Your task to perform on an android device: turn off smart reply in the gmail app Image 0: 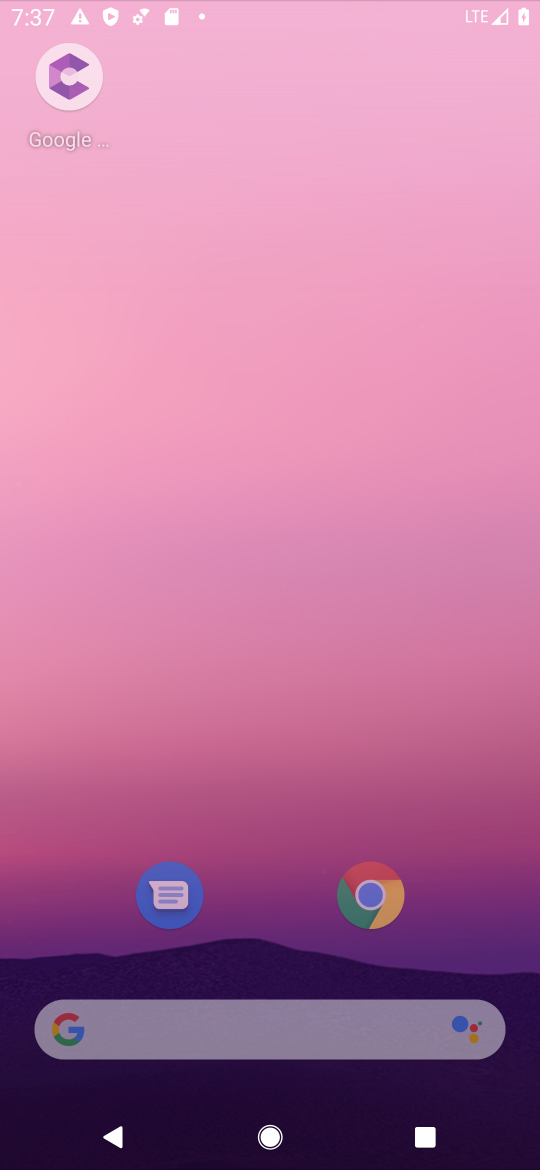
Step 0: click (333, 178)
Your task to perform on an android device: turn off smart reply in the gmail app Image 1: 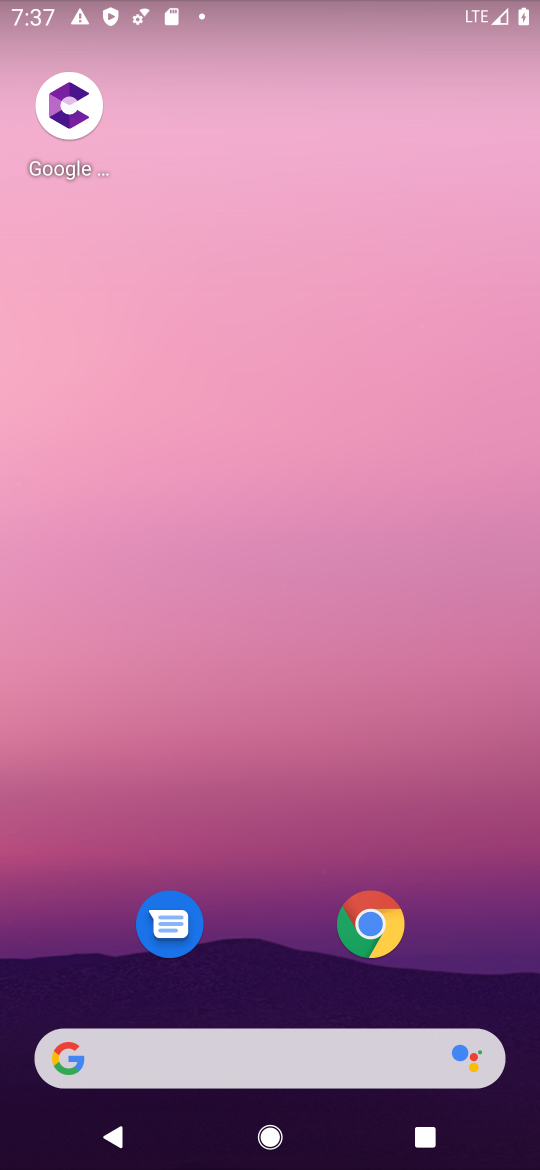
Step 1: drag from (290, 1015) to (419, 96)
Your task to perform on an android device: turn off smart reply in the gmail app Image 2: 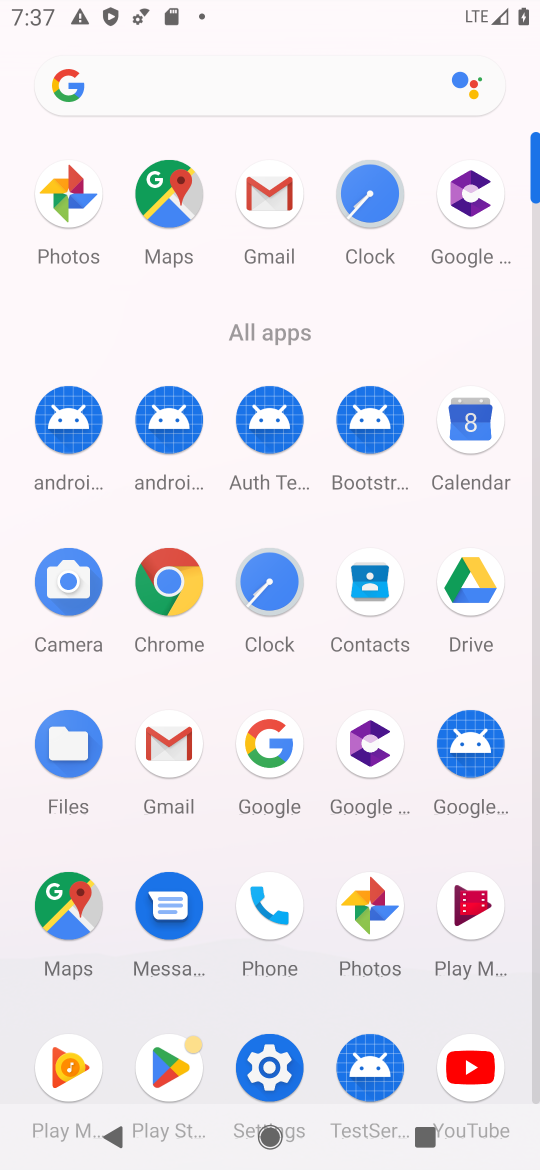
Step 2: click (176, 724)
Your task to perform on an android device: turn off smart reply in the gmail app Image 3: 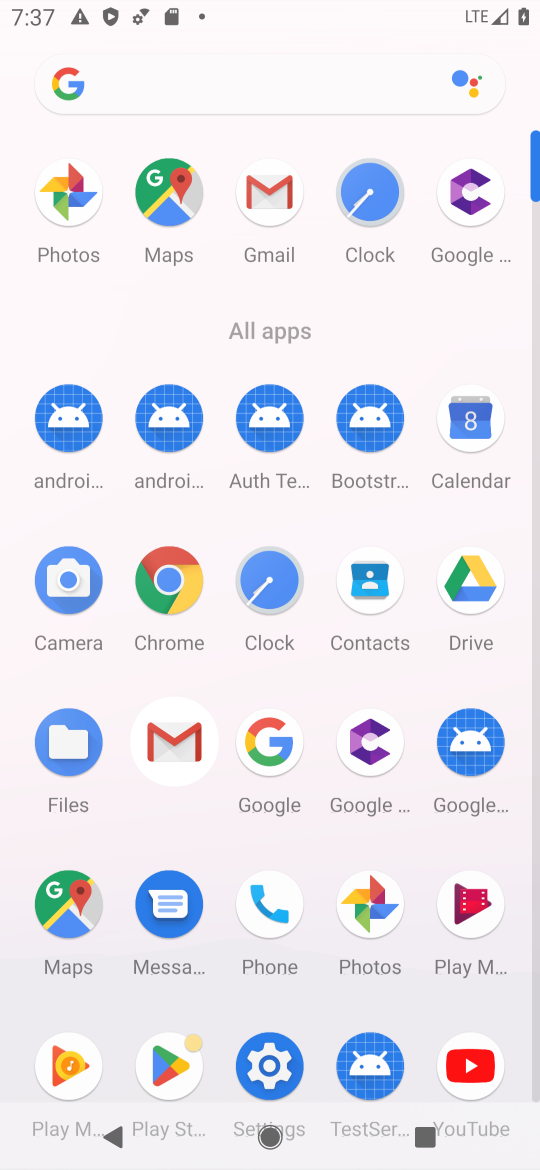
Step 3: click (181, 739)
Your task to perform on an android device: turn off smart reply in the gmail app Image 4: 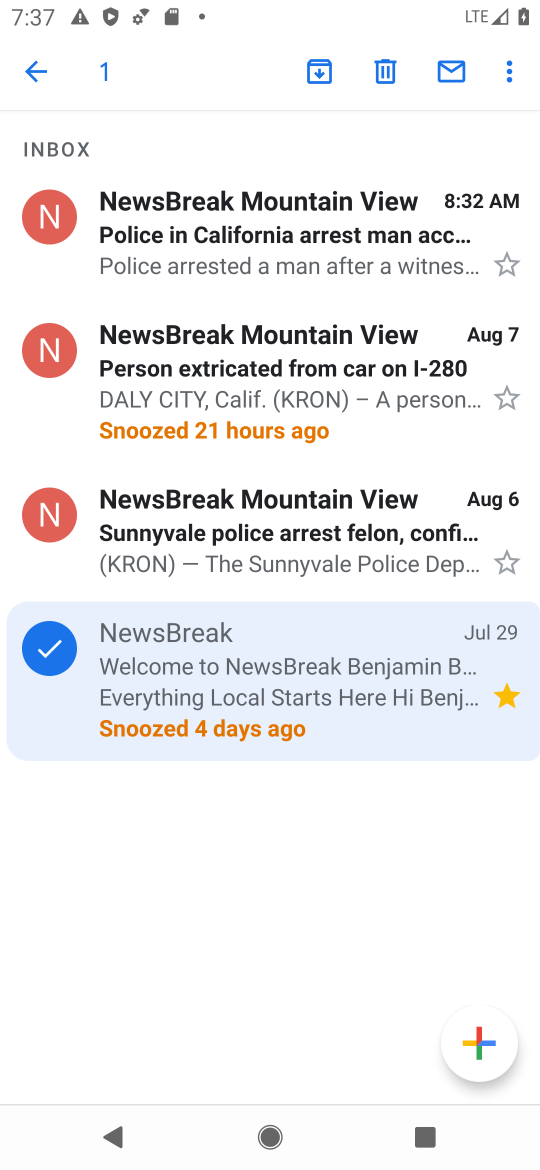
Step 4: click (36, 85)
Your task to perform on an android device: turn off smart reply in the gmail app Image 5: 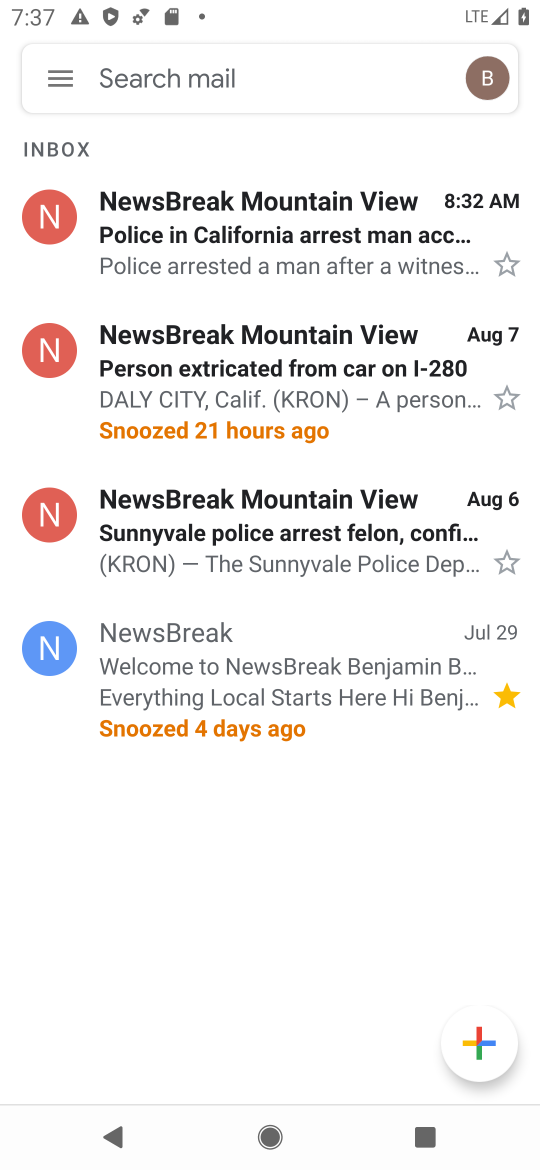
Step 5: click (57, 92)
Your task to perform on an android device: turn off smart reply in the gmail app Image 6: 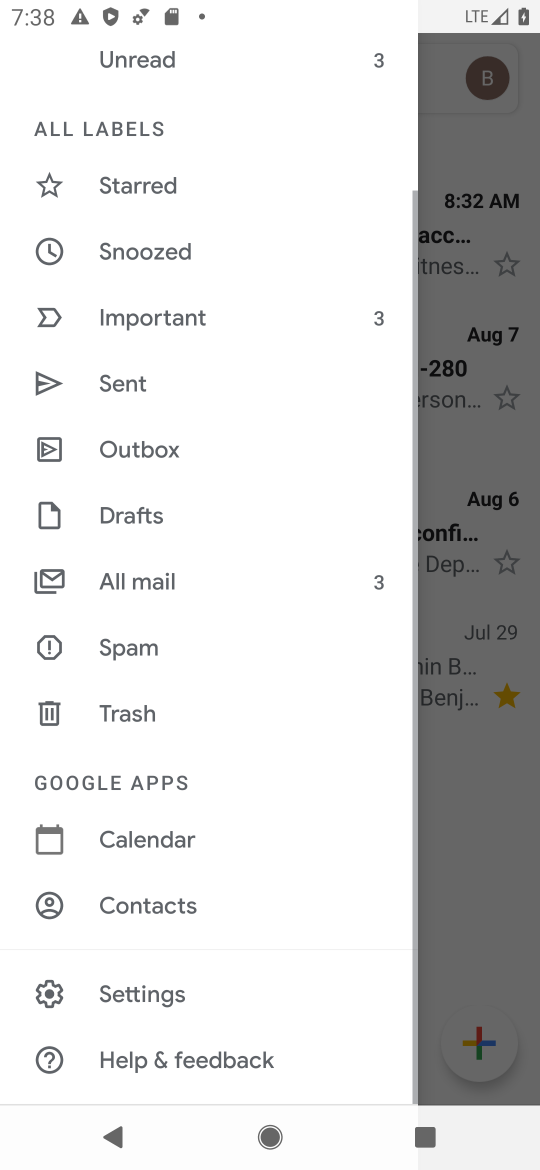
Step 6: drag from (204, 893) to (307, 193)
Your task to perform on an android device: turn off smart reply in the gmail app Image 7: 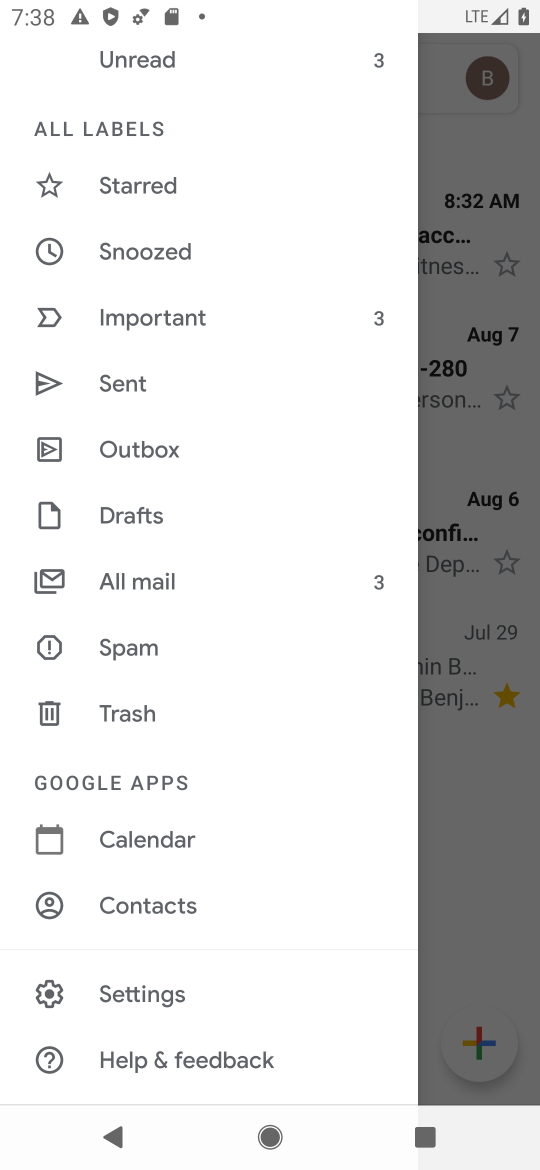
Step 7: click (130, 1002)
Your task to perform on an android device: turn off smart reply in the gmail app Image 8: 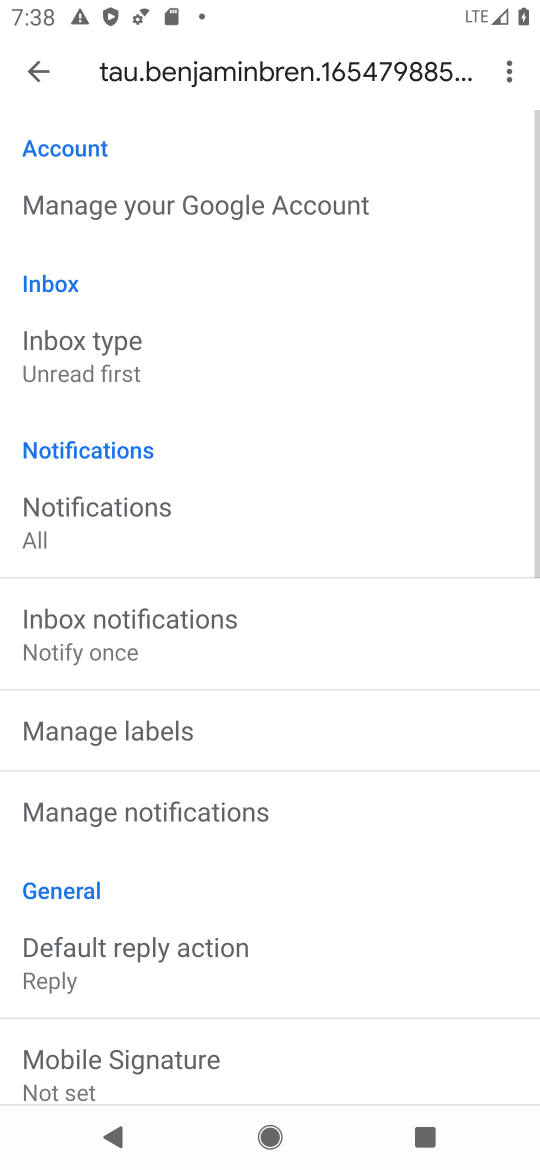
Step 8: drag from (342, 961) to (479, 387)
Your task to perform on an android device: turn off smart reply in the gmail app Image 9: 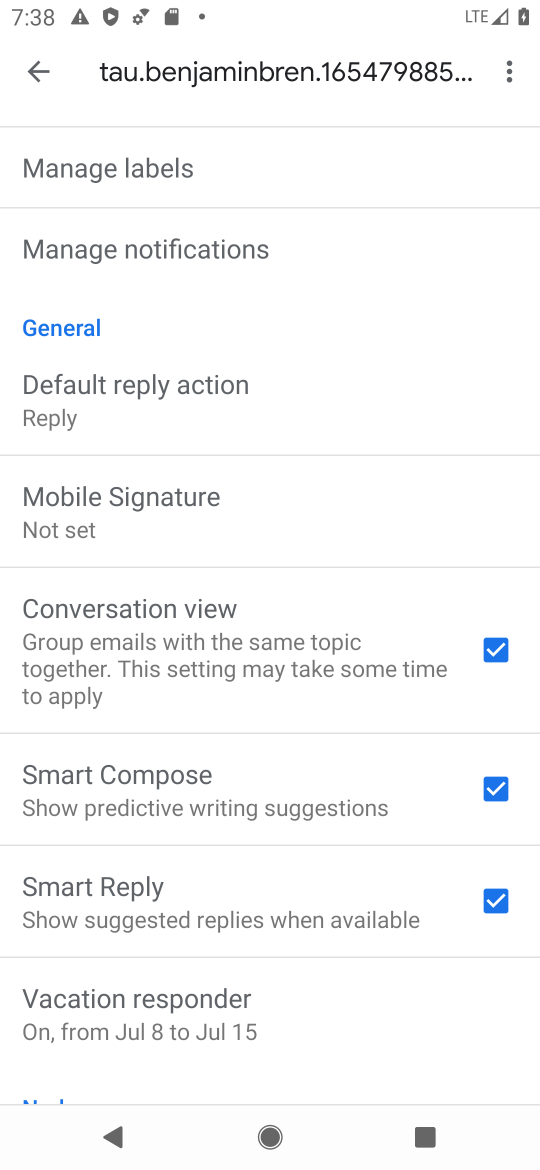
Step 9: drag from (229, 749) to (289, 425)
Your task to perform on an android device: turn off smart reply in the gmail app Image 10: 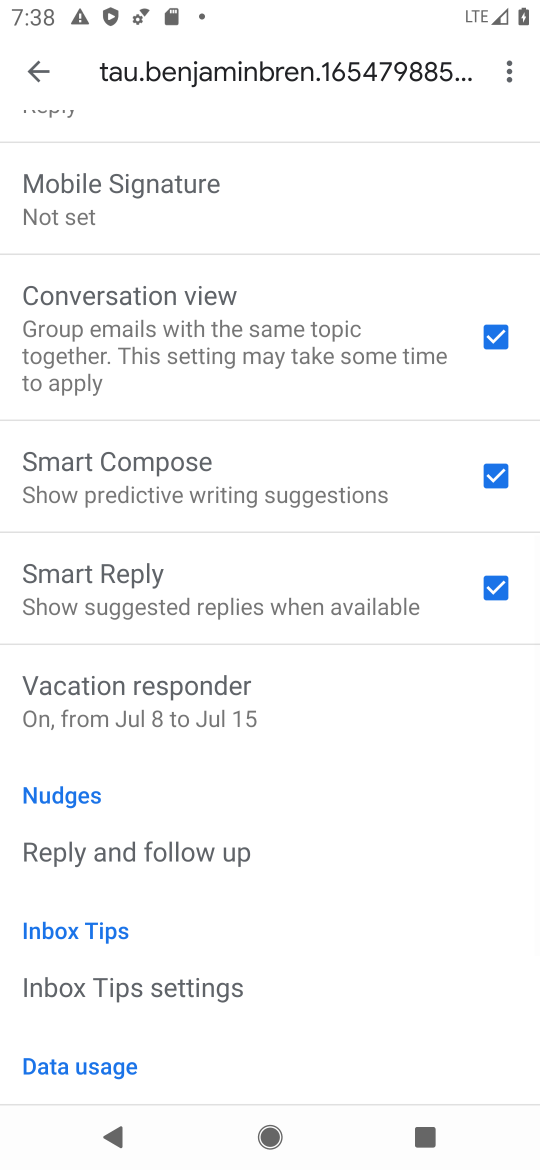
Step 10: drag from (280, 488) to (333, 1136)
Your task to perform on an android device: turn off smart reply in the gmail app Image 11: 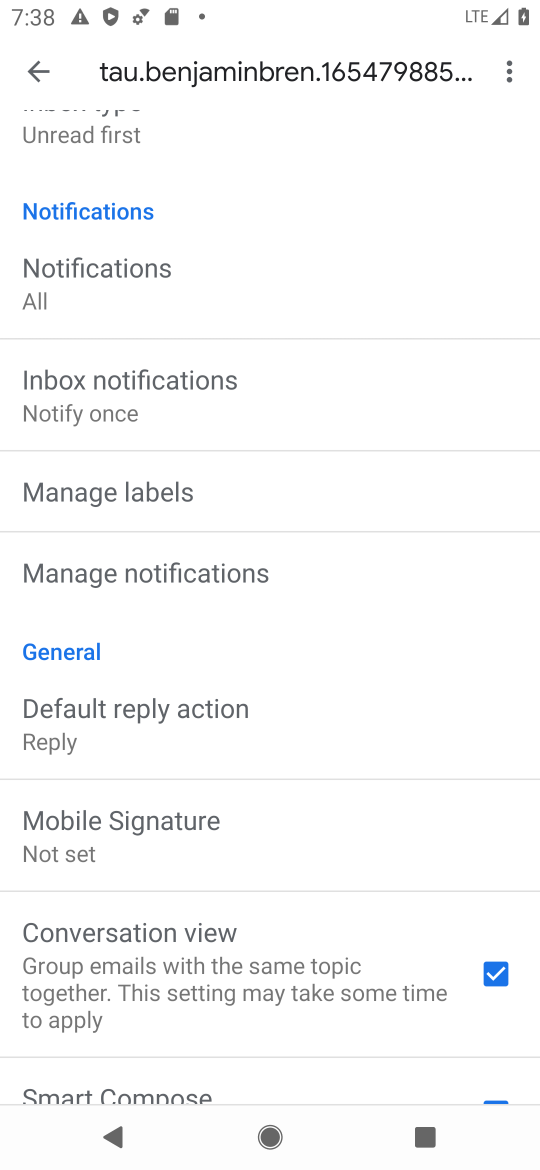
Step 11: drag from (322, 898) to (349, 368)
Your task to perform on an android device: turn off smart reply in the gmail app Image 12: 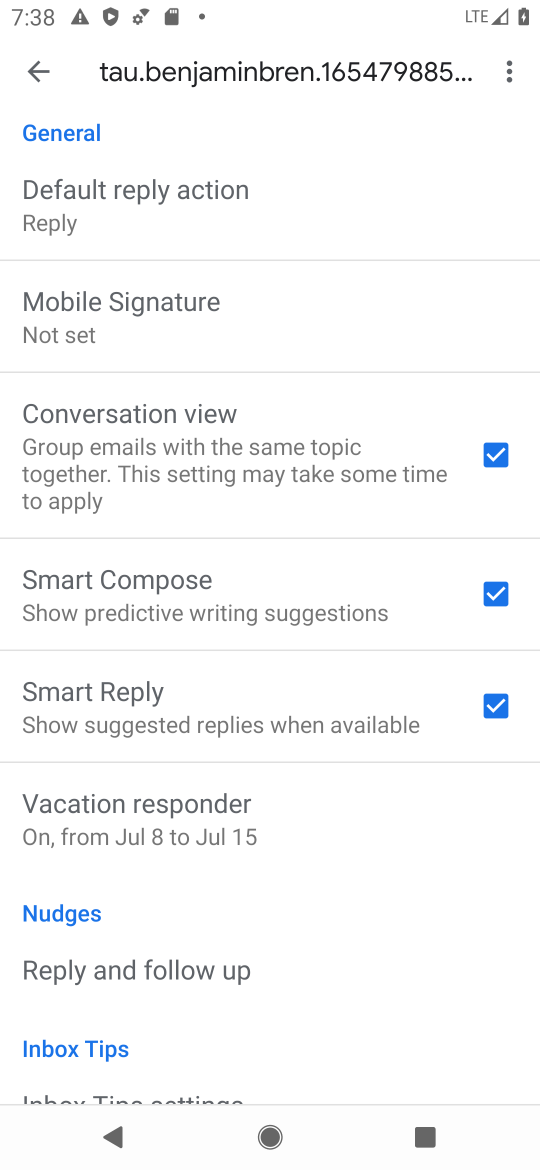
Step 12: click (486, 715)
Your task to perform on an android device: turn off smart reply in the gmail app Image 13: 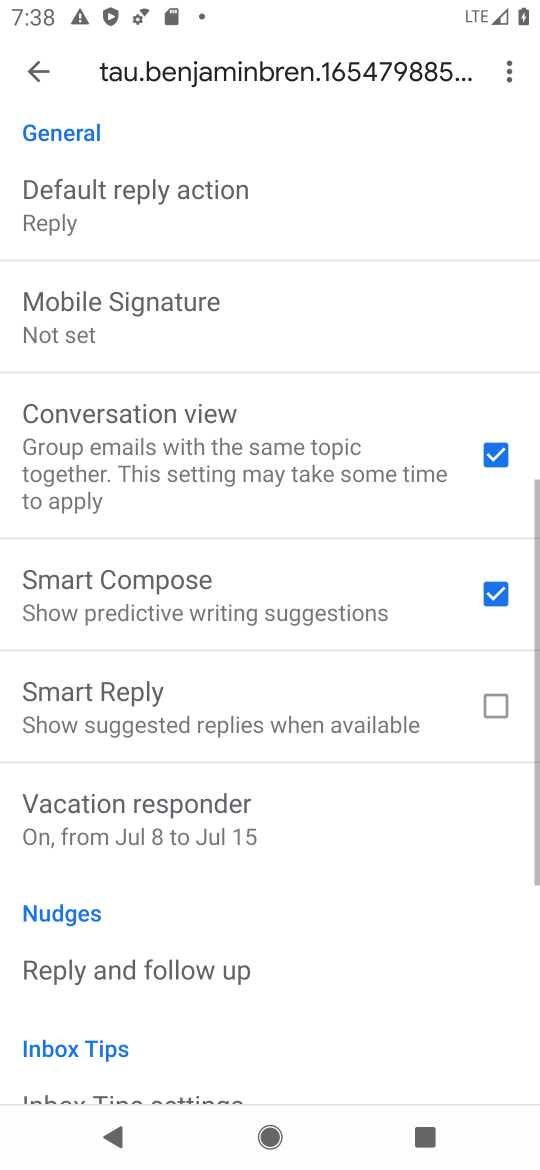
Step 13: task complete